Your task to perform on an android device: Open notification settings Image 0: 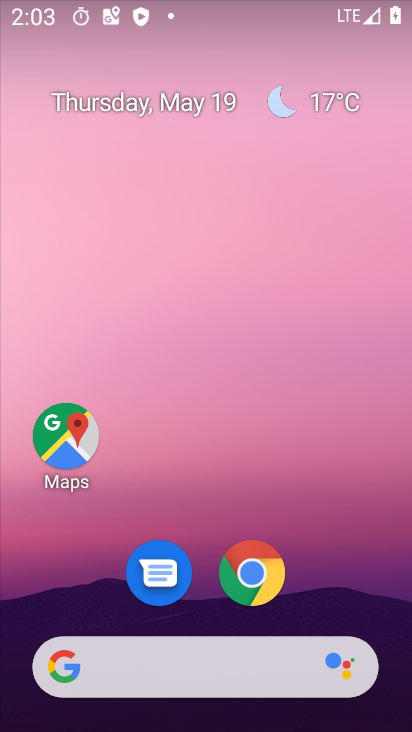
Step 0: drag from (221, 564) to (284, 7)
Your task to perform on an android device: Open notification settings Image 1: 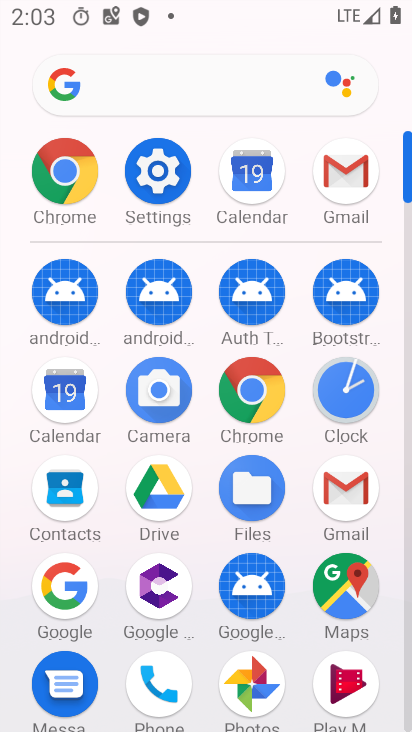
Step 1: click (148, 168)
Your task to perform on an android device: Open notification settings Image 2: 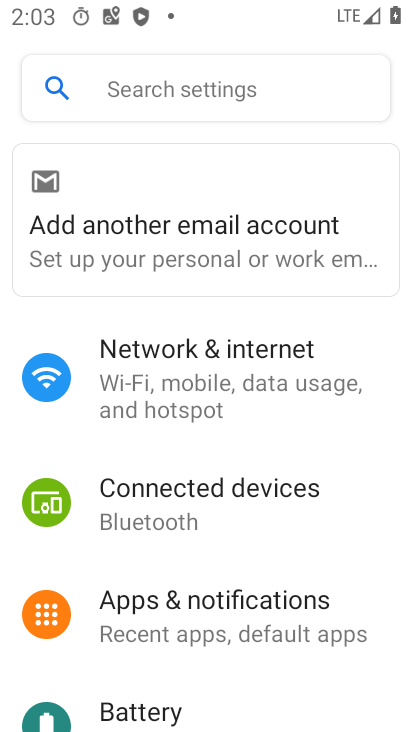
Step 2: click (198, 613)
Your task to perform on an android device: Open notification settings Image 3: 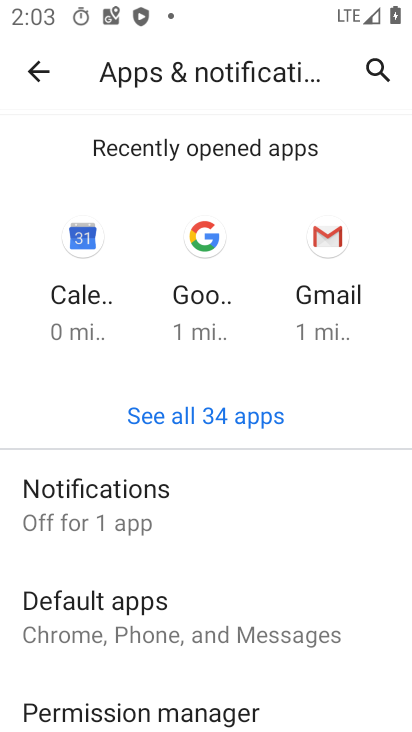
Step 3: task complete